Your task to perform on an android device: Do I have any events today? Image 0: 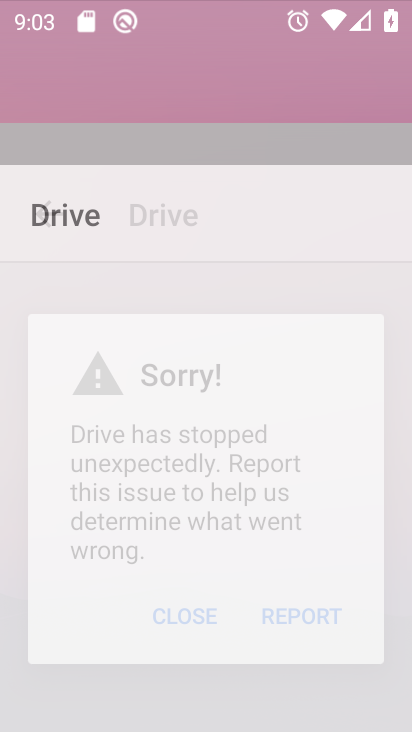
Step 0: click (249, 11)
Your task to perform on an android device: Do I have any events today? Image 1: 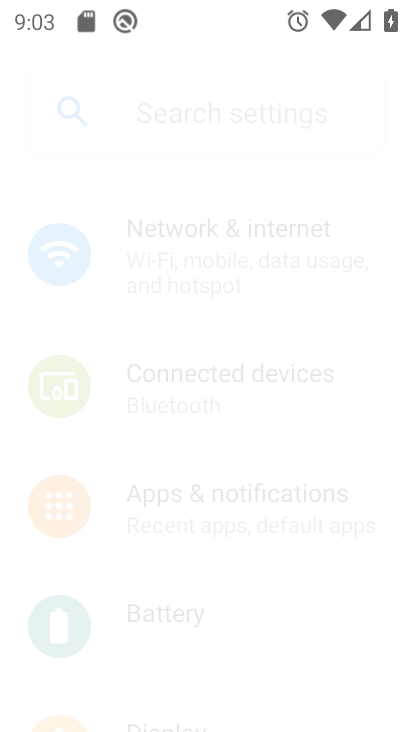
Step 1: press home button
Your task to perform on an android device: Do I have any events today? Image 2: 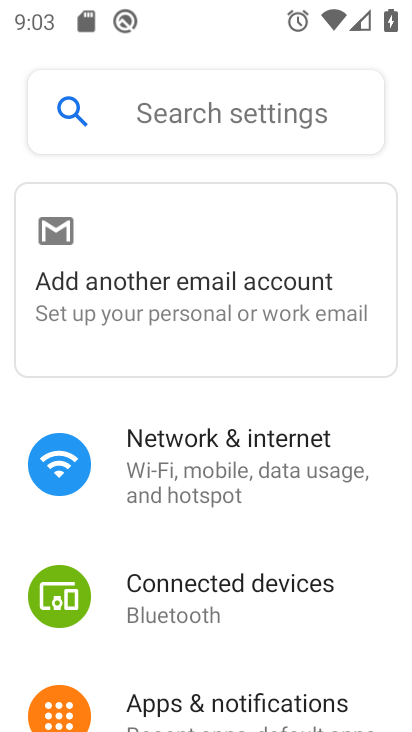
Step 2: press home button
Your task to perform on an android device: Do I have any events today? Image 3: 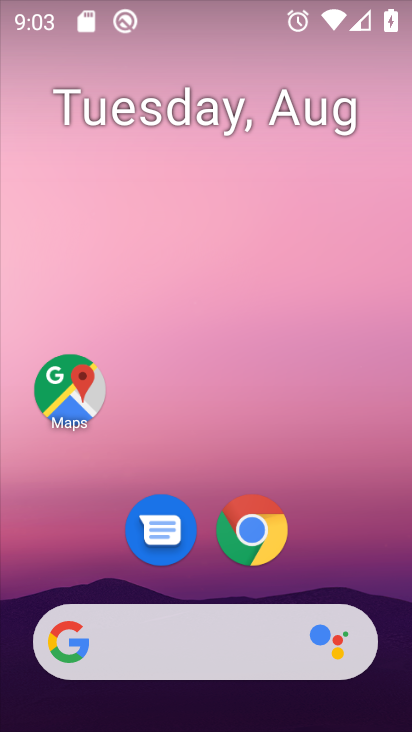
Step 3: click (156, 104)
Your task to perform on an android device: Do I have any events today? Image 4: 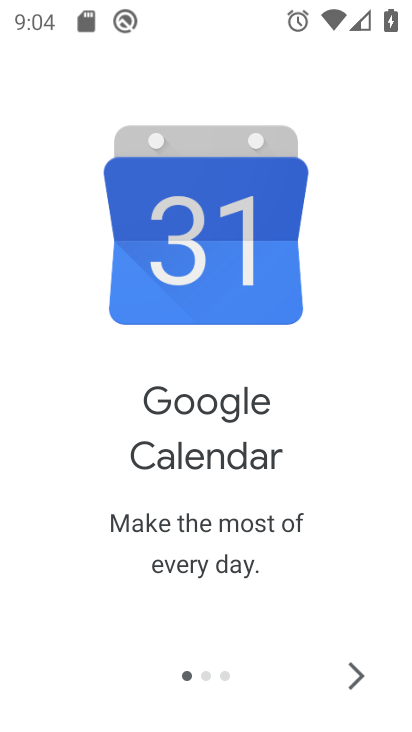
Step 4: click (357, 663)
Your task to perform on an android device: Do I have any events today? Image 5: 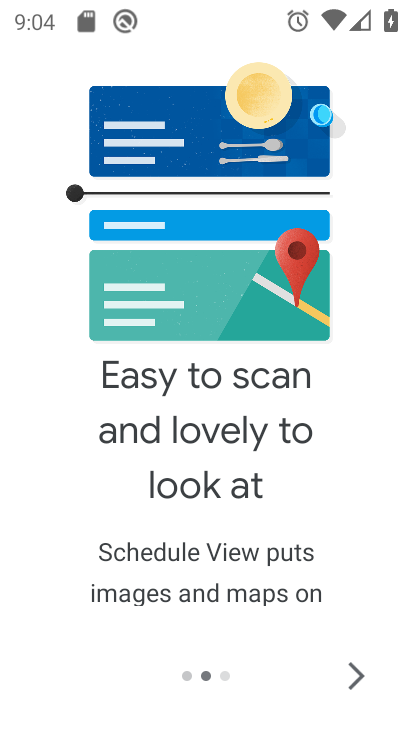
Step 5: click (357, 660)
Your task to perform on an android device: Do I have any events today? Image 6: 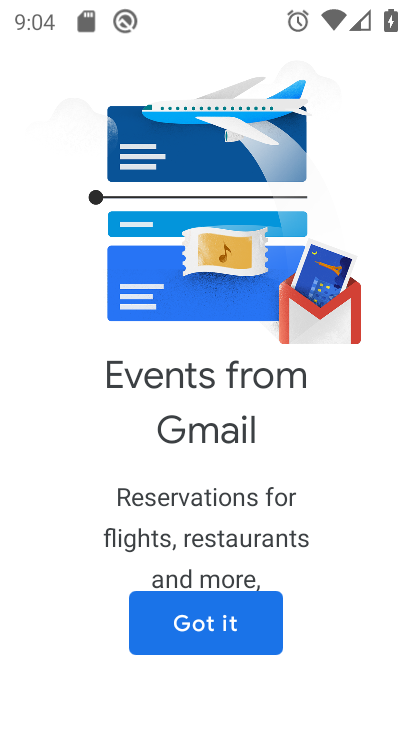
Step 6: click (357, 660)
Your task to perform on an android device: Do I have any events today? Image 7: 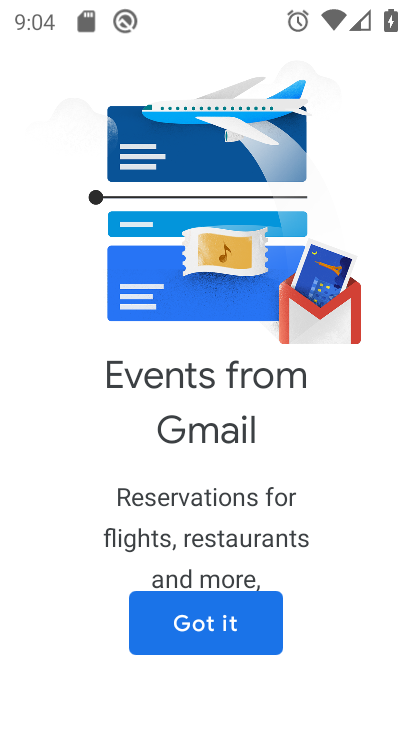
Step 7: click (175, 618)
Your task to perform on an android device: Do I have any events today? Image 8: 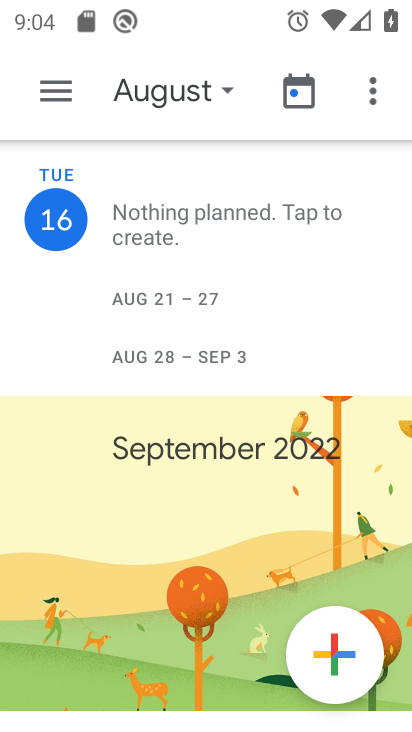
Step 8: task complete